Your task to perform on an android device: turn pop-ups off in chrome Image 0: 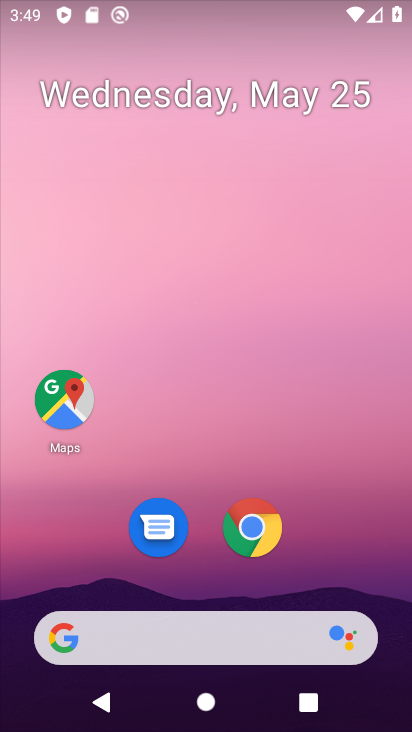
Step 0: click (267, 531)
Your task to perform on an android device: turn pop-ups off in chrome Image 1: 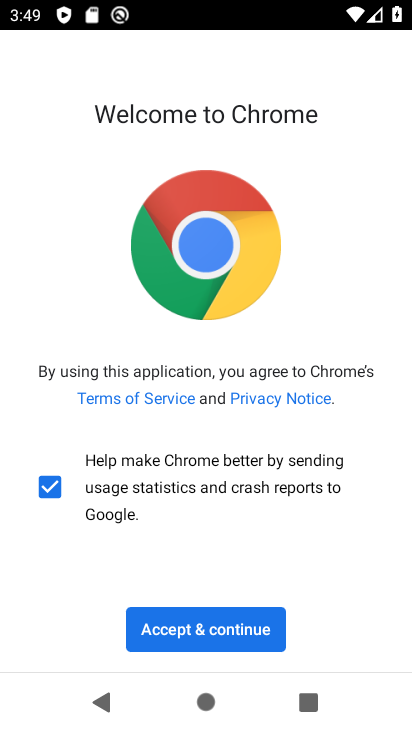
Step 1: click (265, 625)
Your task to perform on an android device: turn pop-ups off in chrome Image 2: 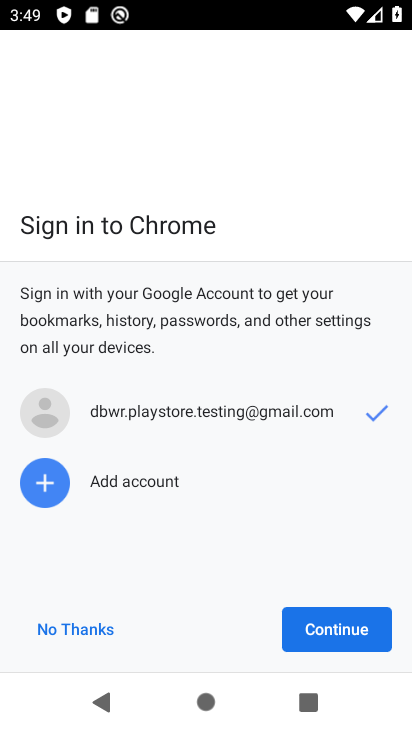
Step 2: click (278, 632)
Your task to perform on an android device: turn pop-ups off in chrome Image 3: 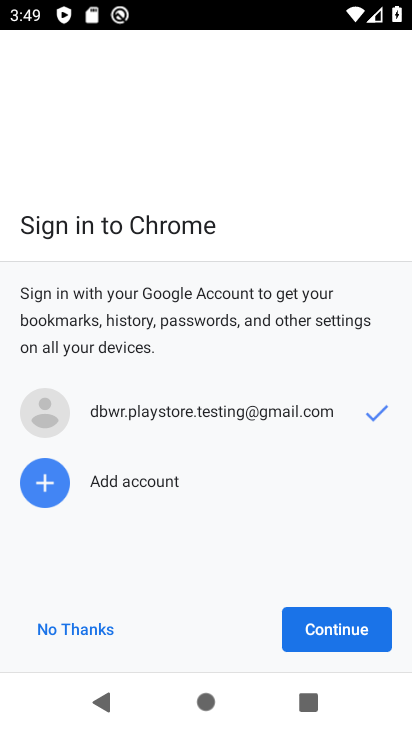
Step 3: click (279, 632)
Your task to perform on an android device: turn pop-ups off in chrome Image 4: 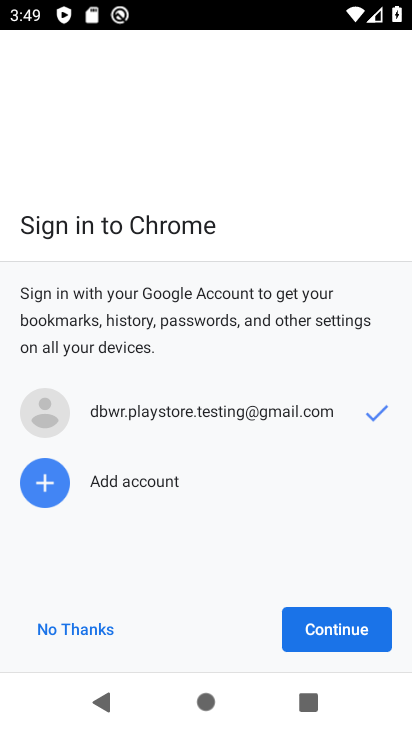
Step 4: click (306, 645)
Your task to perform on an android device: turn pop-ups off in chrome Image 5: 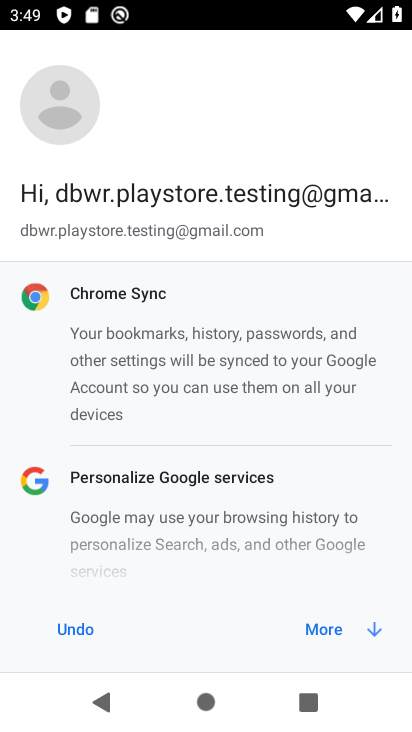
Step 5: click (309, 638)
Your task to perform on an android device: turn pop-ups off in chrome Image 6: 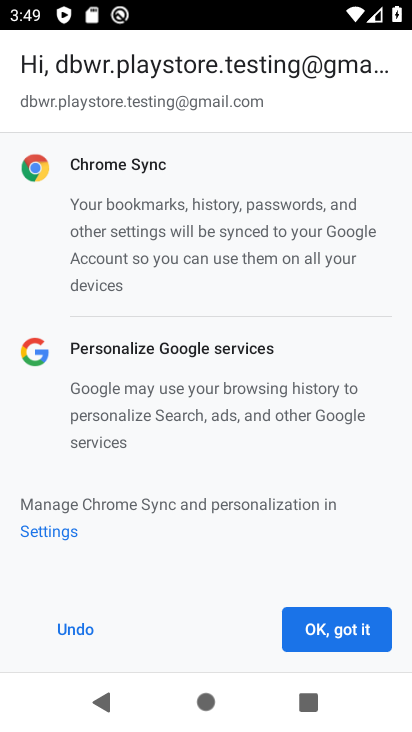
Step 6: click (326, 634)
Your task to perform on an android device: turn pop-ups off in chrome Image 7: 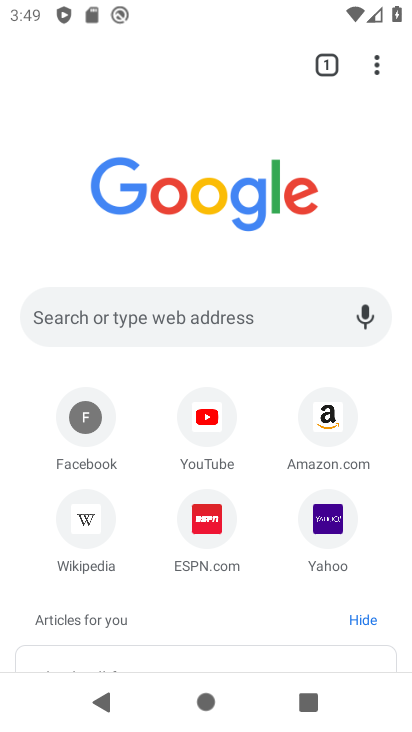
Step 7: drag from (384, 74) to (263, 573)
Your task to perform on an android device: turn pop-ups off in chrome Image 8: 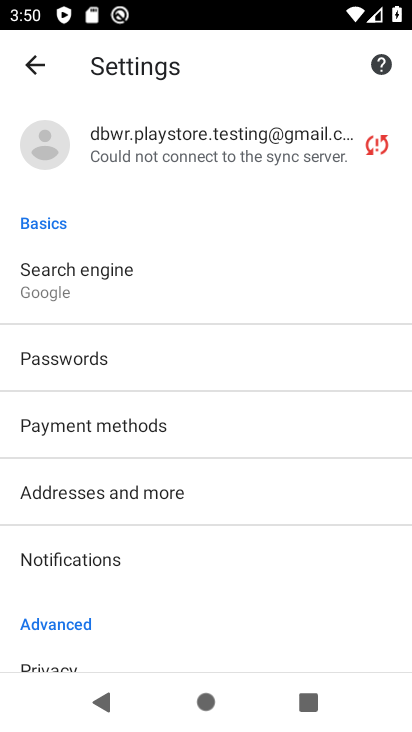
Step 8: drag from (176, 641) to (264, 292)
Your task to perform on an android device: turn pop-ups off in chrome Image 9: 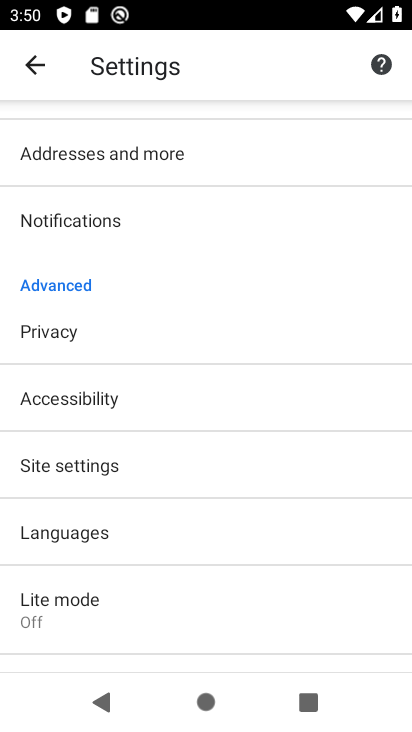
Step 9: drag from (117, 624) to (212, 272)
Your task to perform on an android device: turn pop-ups off in chrome Image 10: 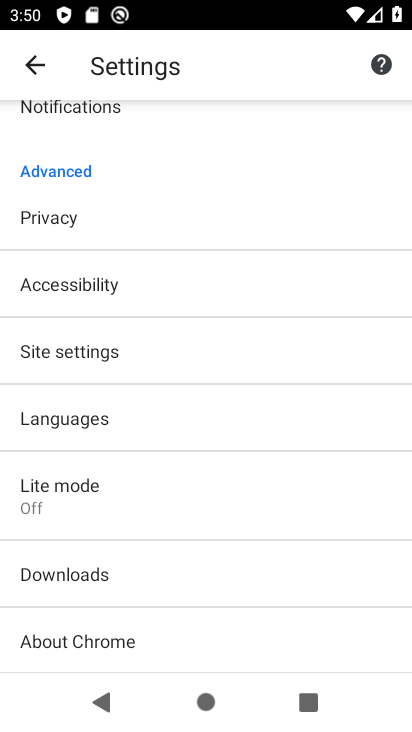
Step 10: click (146, 365)
Your task to perform on an android device: turn pop-ups off in chrome Image 11: 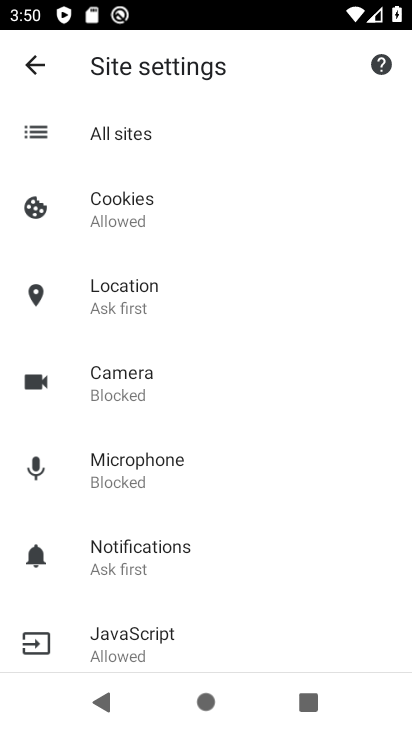
Step 11: drag from (182, 638) to (228, 446)
Your task to perform on an android device: turn pop-ups off in chrome Image 12: 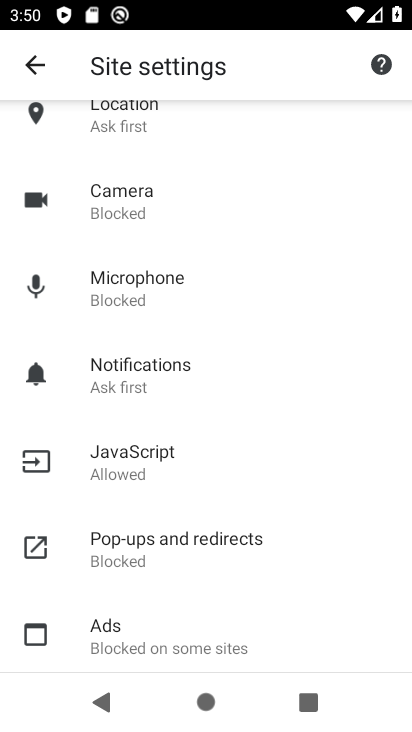
Step 12: click (179, 558)
Your task to perform on an android device: turn pop-ups off in chrome Image 13: 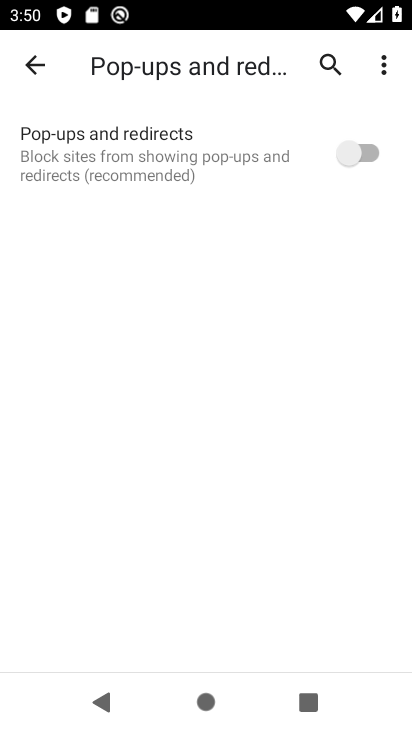
Step 13: task complete